Your task to perform on an android device: choose inbox layout in the gmail app Image 0: 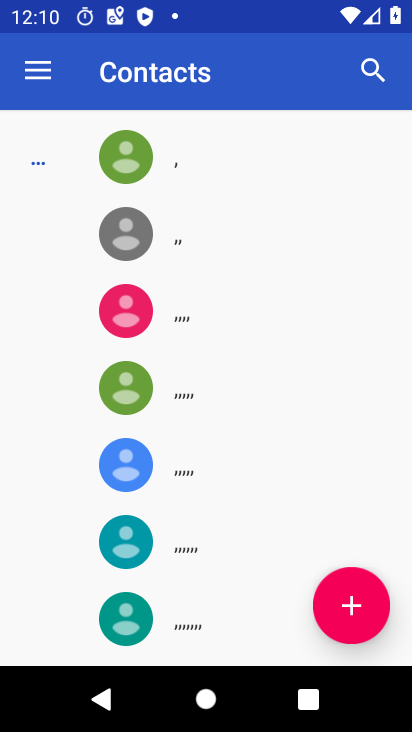
Step 0: press home button
Your task to perform on an android device: choose inbox layout in the gmail app Image 1: 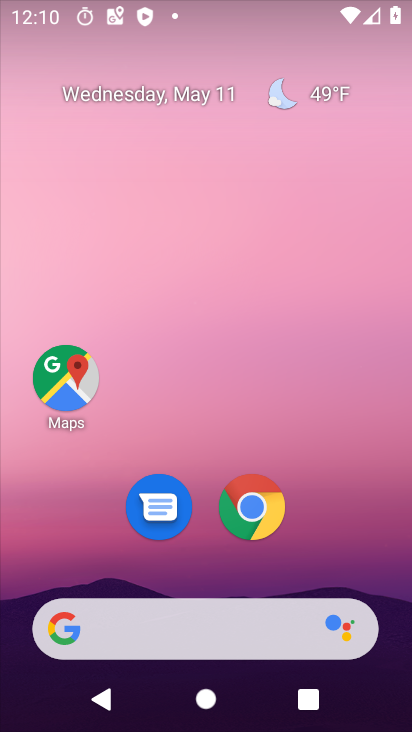
Step 1: drag from (207, 568) to (250, 51)
Your task to perform on an android device: choose inbox layout in the gmail app Image 2: 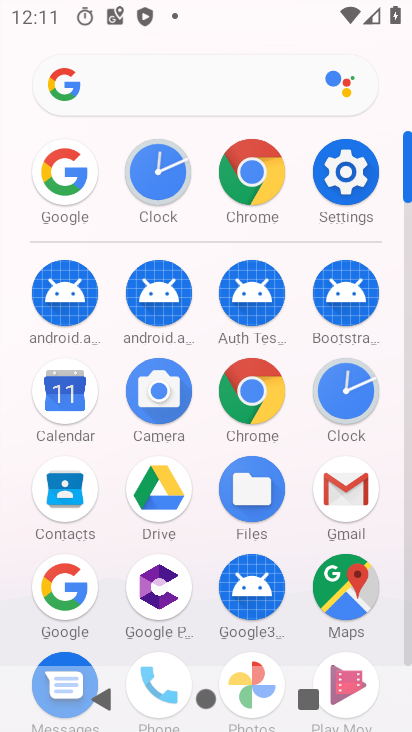
Step 2: click (331, 486)
Your task to perform on an android device: choose inbox layout in the gmail app Image 3: 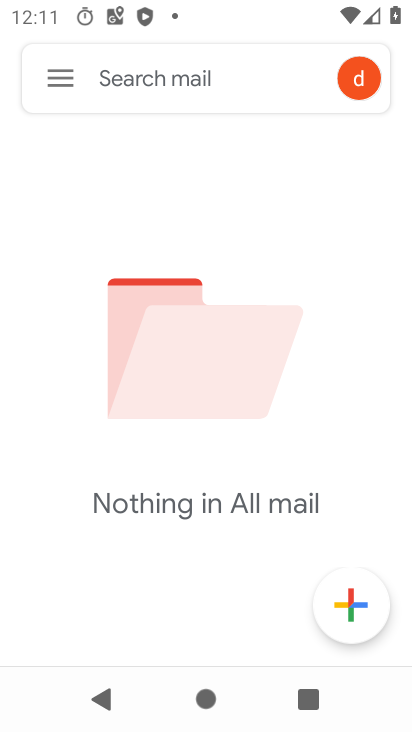
Step 3: click (55, 81)
Your task to perform on an android device: choose inbox layout in the gmail app Image 4: 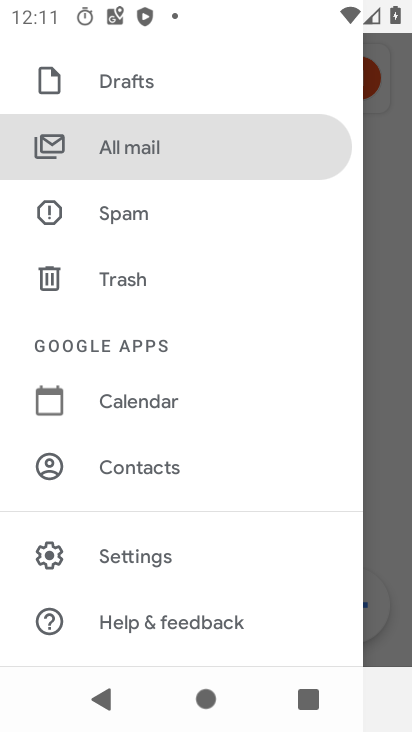
Step 4: drag from (187, 532) to (223, 117)
Your task to perform on an android device: choose inbox layout in the gmail app Image 5: 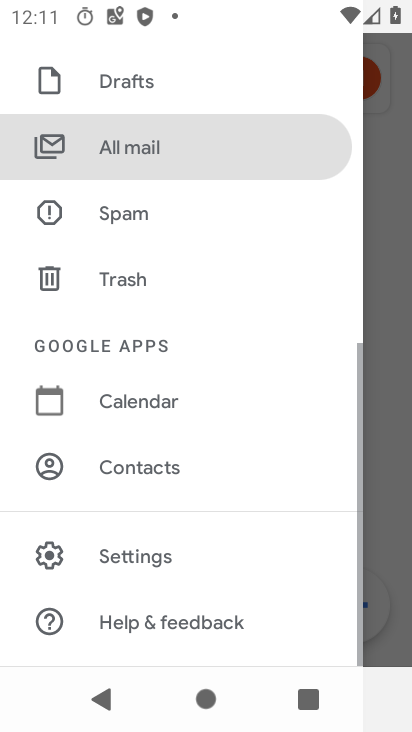
Step 5: click (126, 580)
Your task to perform on an android device: choose inbox layout in the gmail app Image 6: 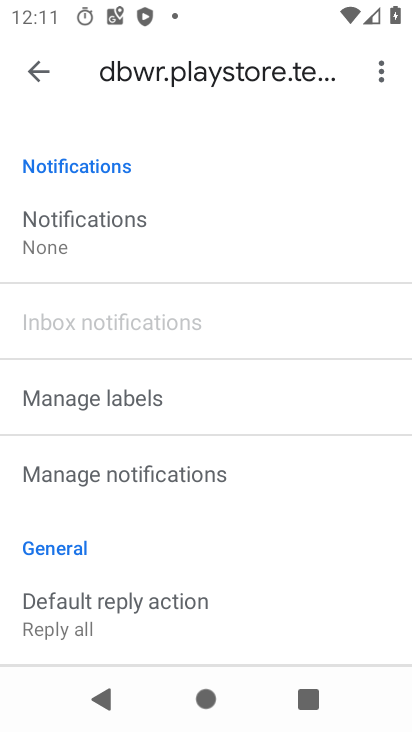
Step 6: drag from (187, 243) to (159, 371)
Your task to perform on an android device: choose inbox layout in the gmail app Image 7: 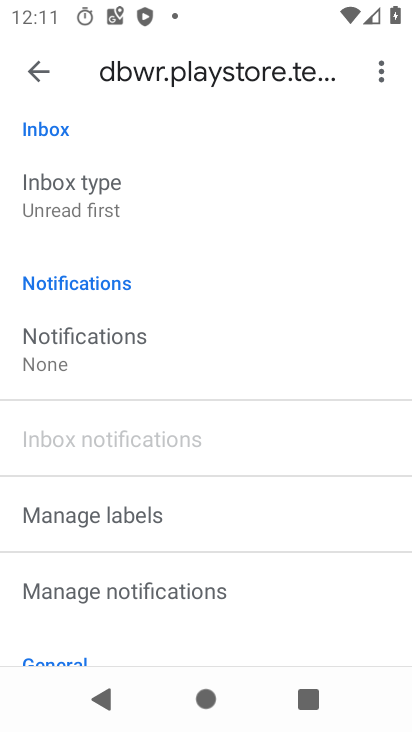
Step 7: drag from (95, 194) to (109, 271)
Your task to perform on an android device: choose inbox layout in the gmail app Image 8: 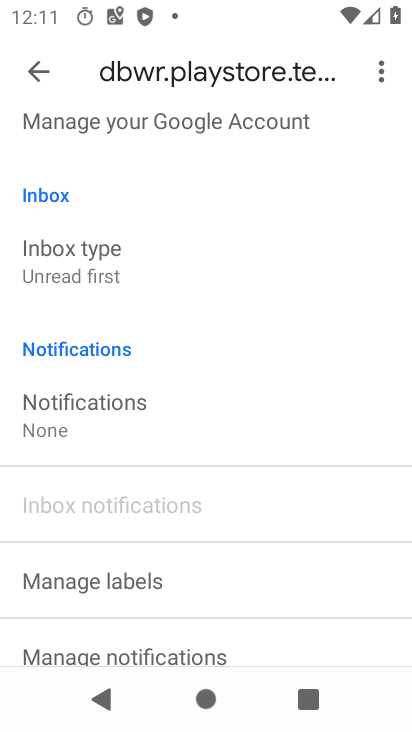
Step 8: click (105, 265)
Your task to perform on an android device: choose inbox layout in the gmail app Image 9: 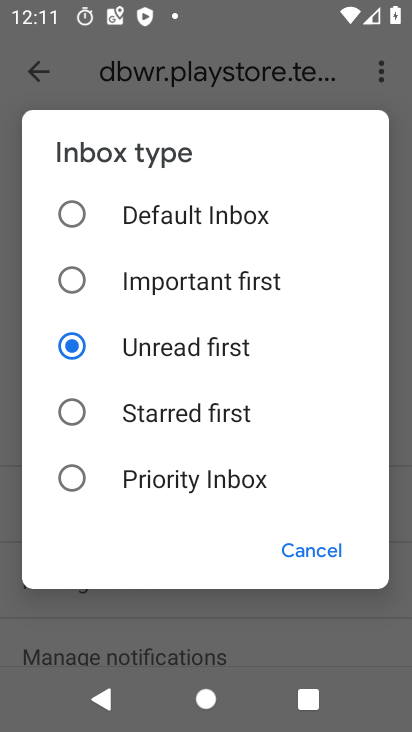
Step 9: click (75, 224)
Your task to perform on an android device: choose inbox layout in the gmail app Image 10: 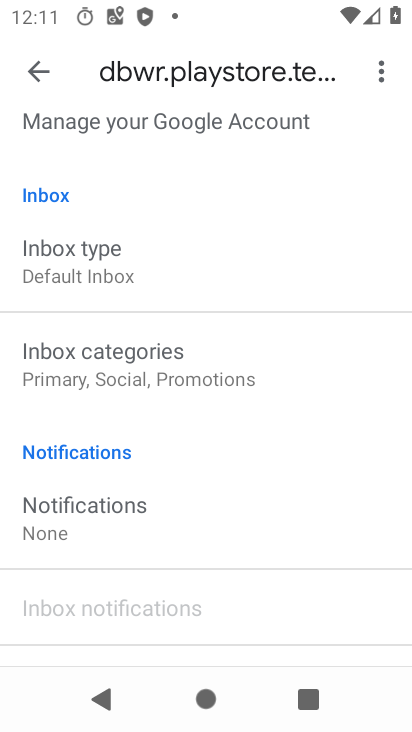
Step 10: task complete